Your task to perform on an android device: turn off priority inbox in the gmail app Image 0: 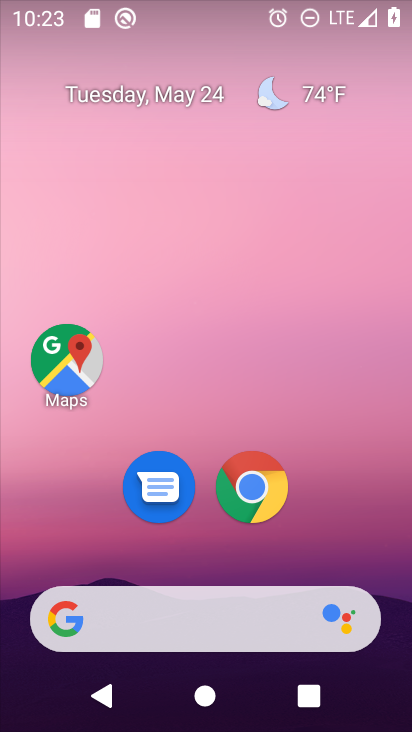
Step 0: drag from (369, 533) to (351, 24)
Your task to perform on an android device: turn off priority inbox in the gmail app Image 1: 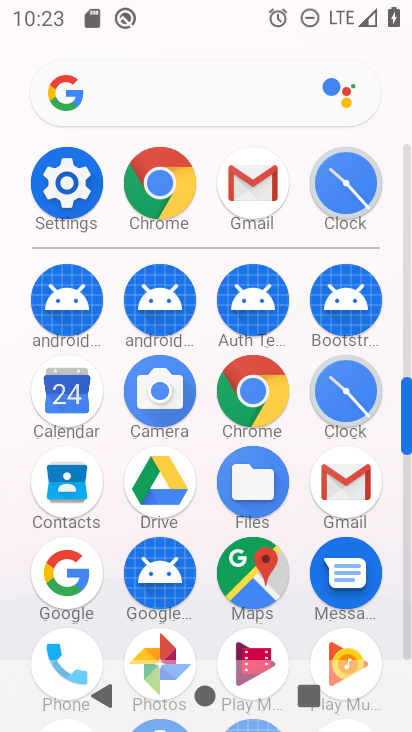
Step 1: click (254, 190)
Your task to perform on an android device: turn off priority inbox in the gmail app Image 2: 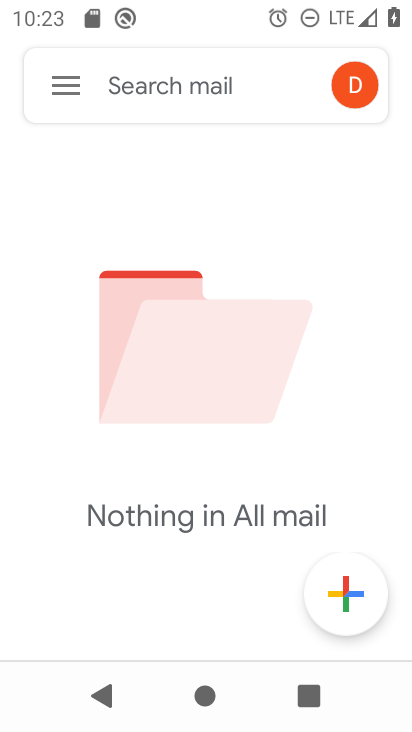
Step 2: click (66, 133)
Your task to perform on an android device: turn off priority inbox in the gmail app Image 3: 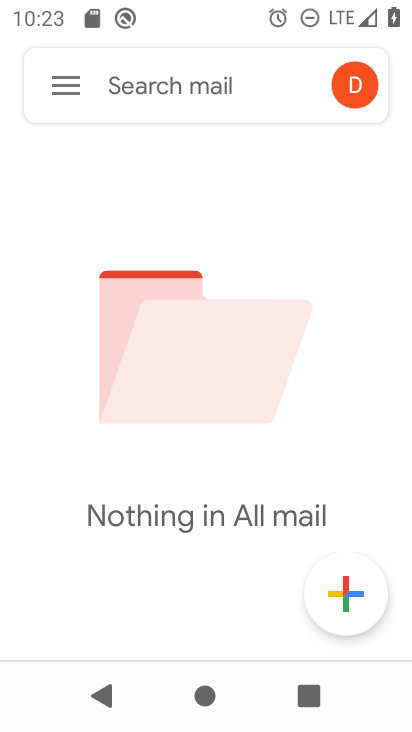
Step 3: click (58, 88)
Your task to perform on an android device: turn off priority inbox in the gmail app Image 4: 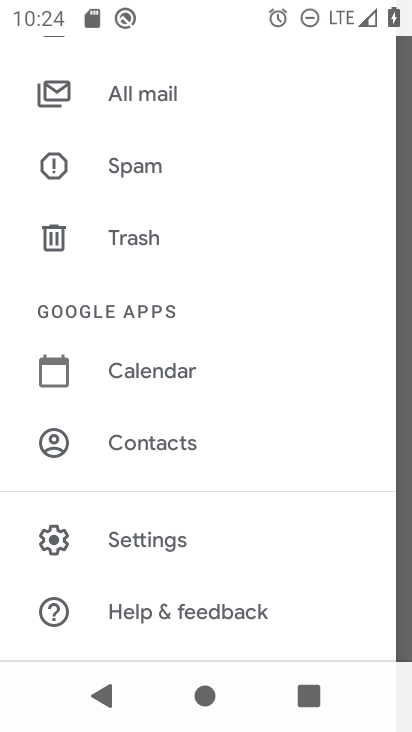
Step 4: click (174, 529)
Your task to perform on an android device: turn off priority inbox in the gmail app Image 5: 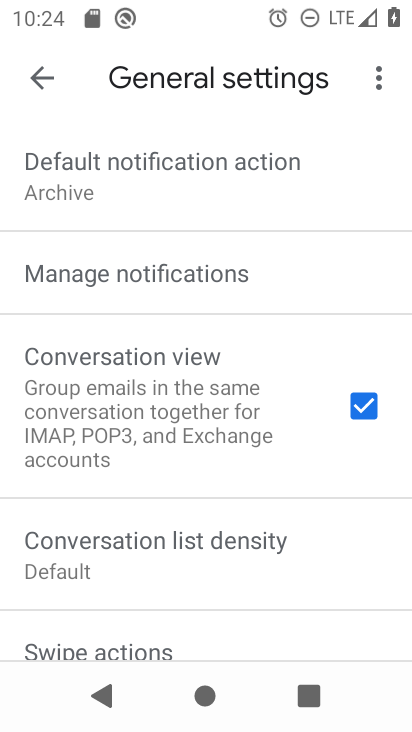
Step 5: click (35, 79)
Your task to perform on an android device: turn off priority inbox in the gmail app Image 6: 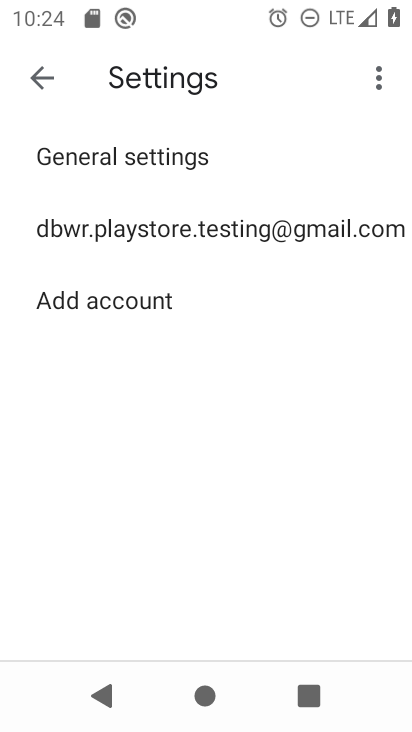
Step 6: click (134, 232)
Your task to perform on an android device: turn off priority inbox in the gmail app Image 7: 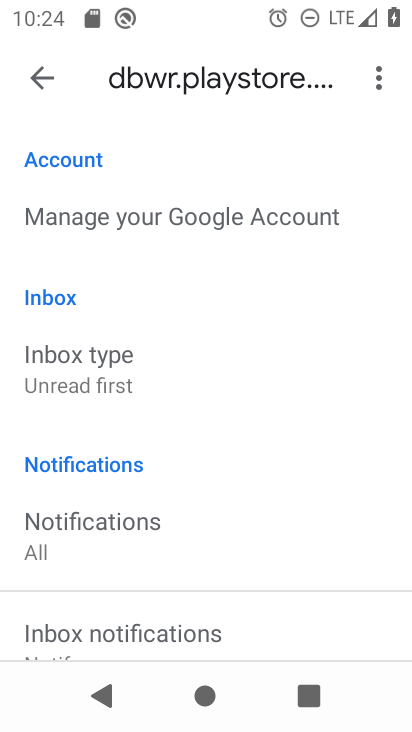
Step 7: click (91, 383)
Your task to perform on an android device: turn off priority inbox in the gmail app Image 8: 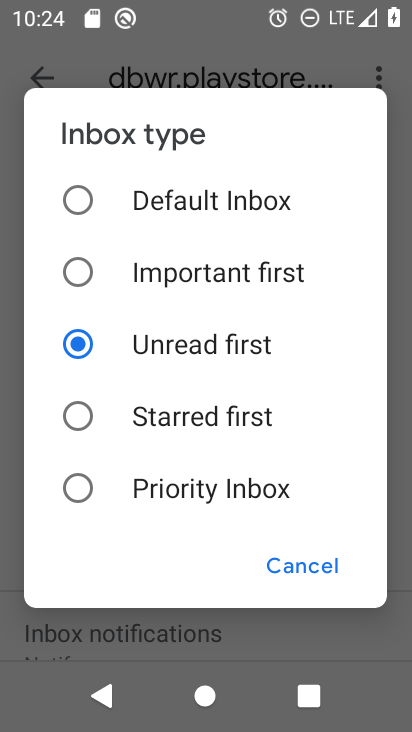
Step 8: task complete